Your task to perform on an android device: show emergency info Image 0: 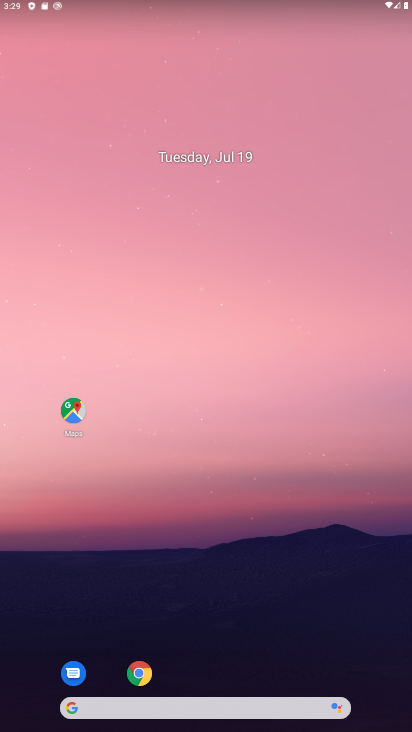
Step 0: drag from (294, 538) to (282, 0)
Your task to perform on an android device: show emergency info Image 1: 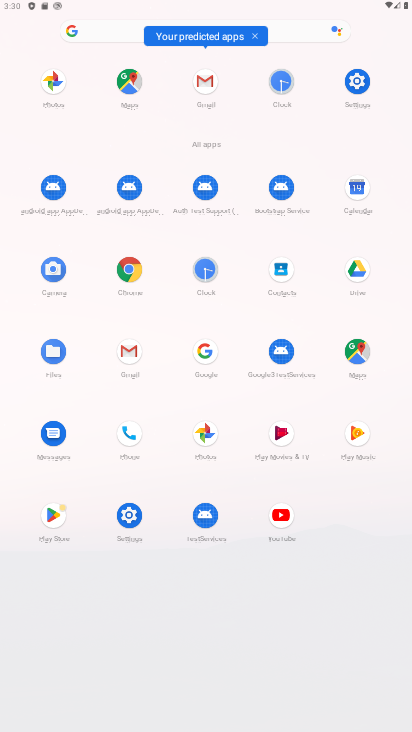
Step 1: click (365, 87)
Your task to perform on an android device: show emergency info Image 2: 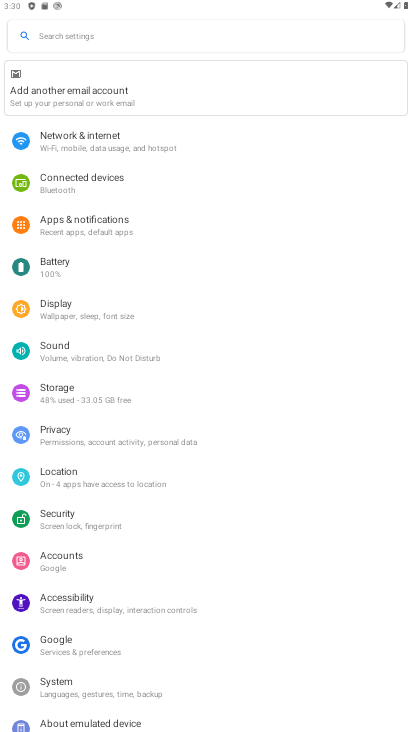
Step 2: drag from (280, 616) to (270, 476)
Your task to perform on an android device: show emergency info Image 3: 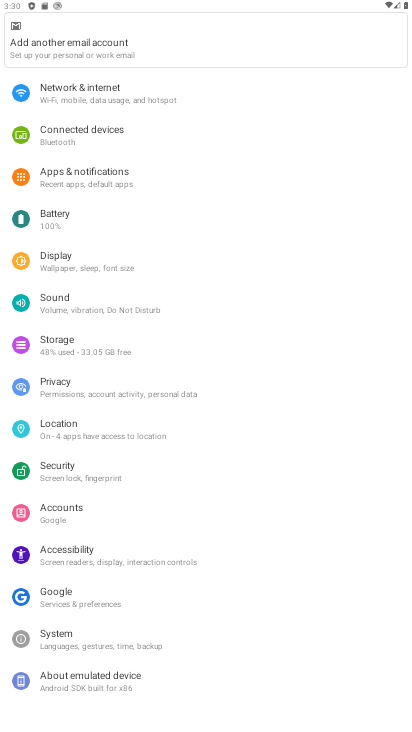
Step 3: click (62, 680)
Your task to perform on an android device: show emergency info Image 4: 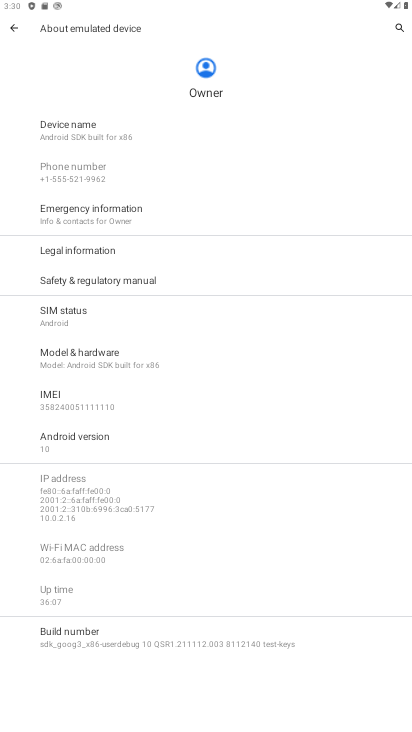
Step 4: click (118, 207)
Your task to perform on an android device: show emergency info Image 5: 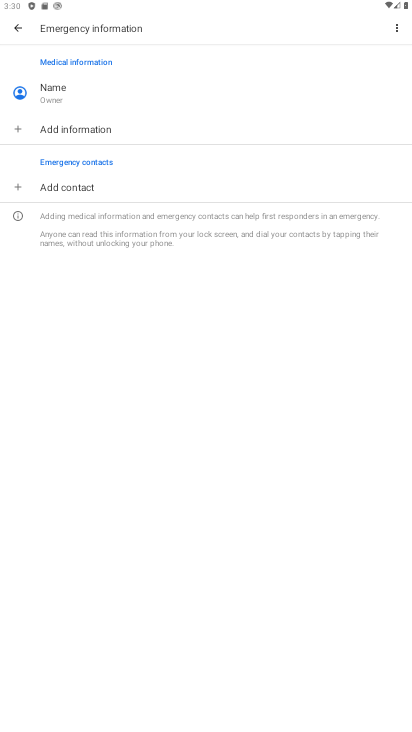
Step 5: task complete